Your task to perform on an android device: Open the Play Movies app and select the watchlist tab. Image 0: 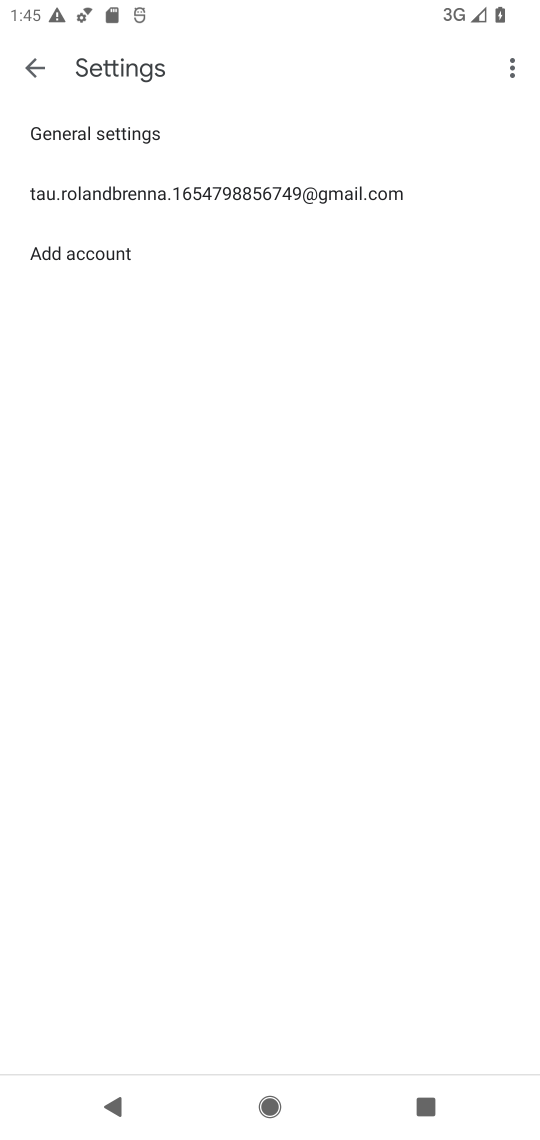
Step 0: press home button
Your task to perform on an android device: Open the Play Movies app and select the watchlist tab. Image 1: 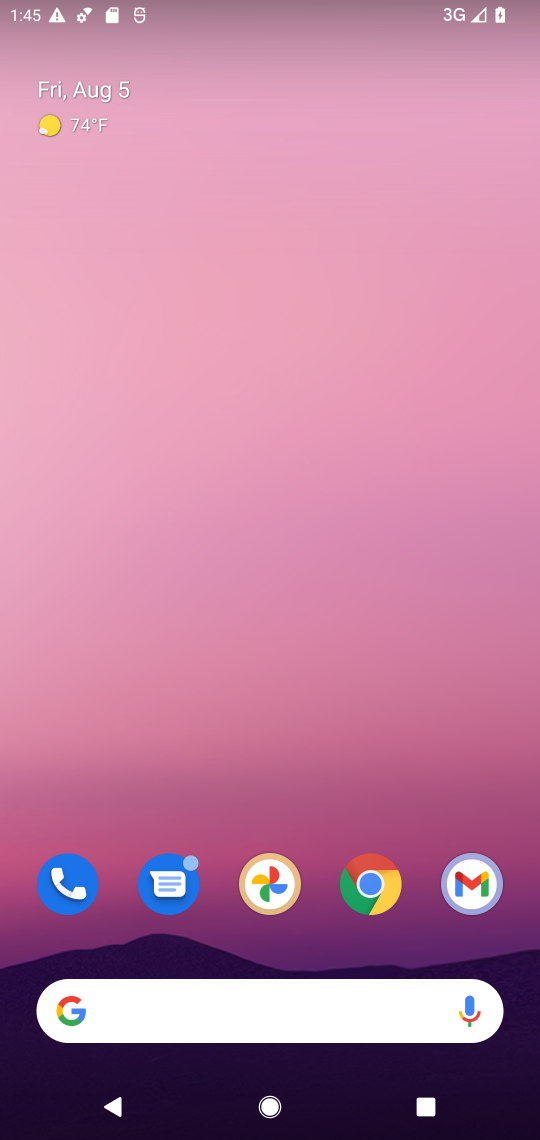
Step 1: task complete